Your task to perform on an android device: turn on wifi Image 0: 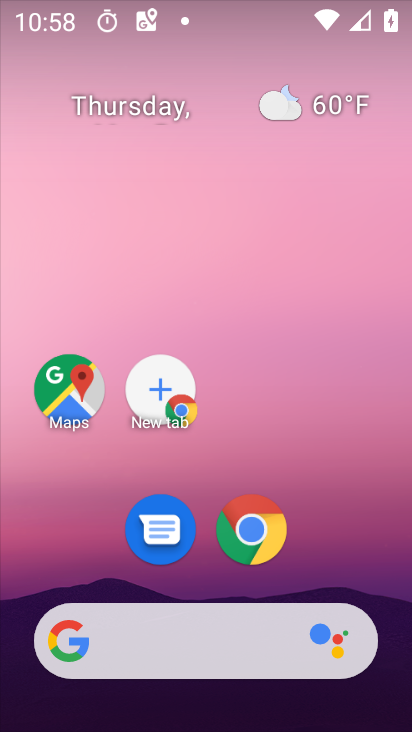
Step 0: drag from (357, 676) to (320, 263)
Your task to perform on an android device: turn on wifi Image 1: 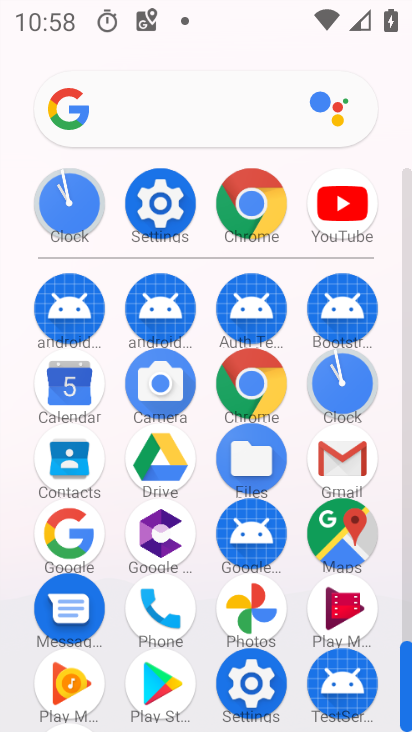
Step 1: click (146, 204)
Your task to perform on an android device: turn on wifi Image 2: 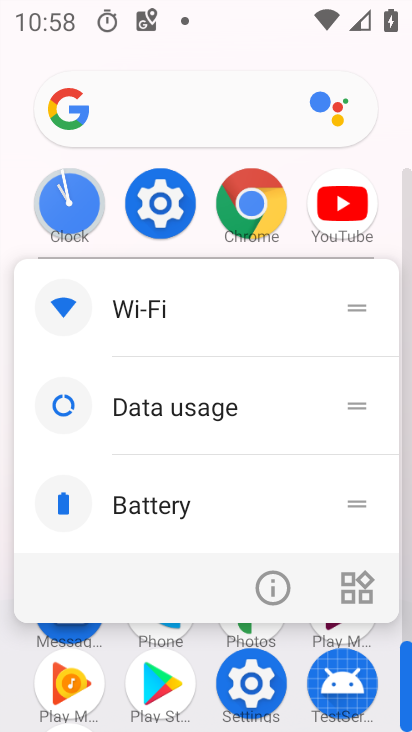
Step 2: click (166, 309)
Your task to perform on an android device: turn on wifi Image 3: 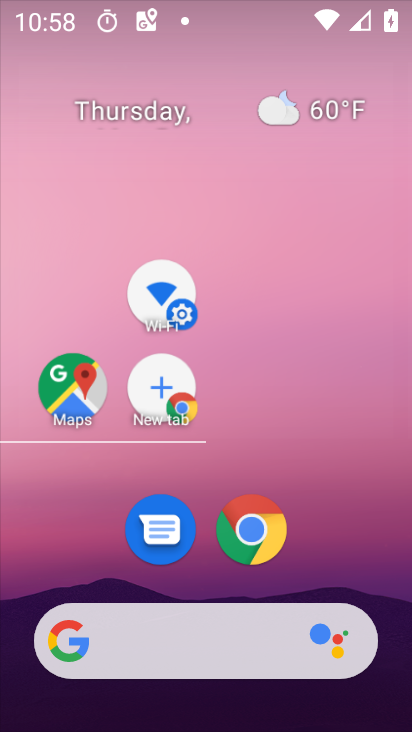
Step 3: click (259, 420)
Your task to perform on an android device: turn on wifi Image 4: 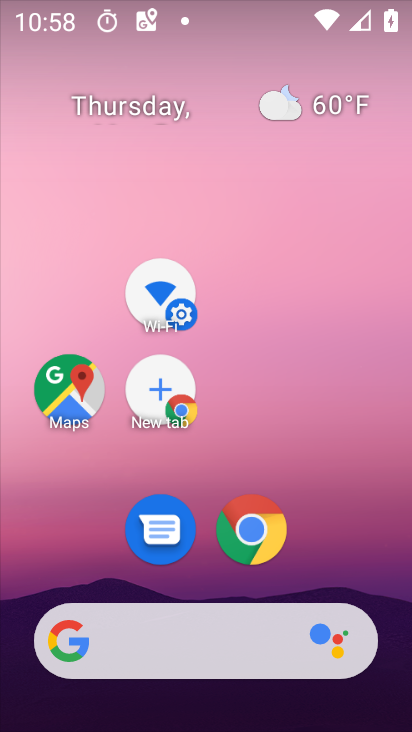
Step 4: drag from (365, 565) to (232, 138)
Your task to perform on an android device: turn on wifi Image 5: 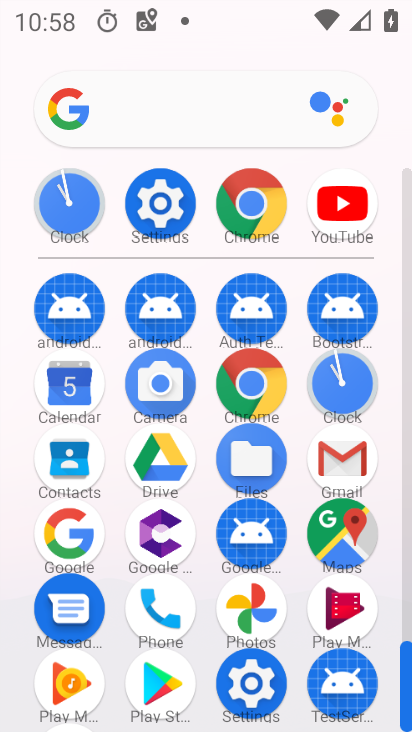
Step 5: click (167, 206)
Your task to perform on an android device: turn on wifi Image 6: 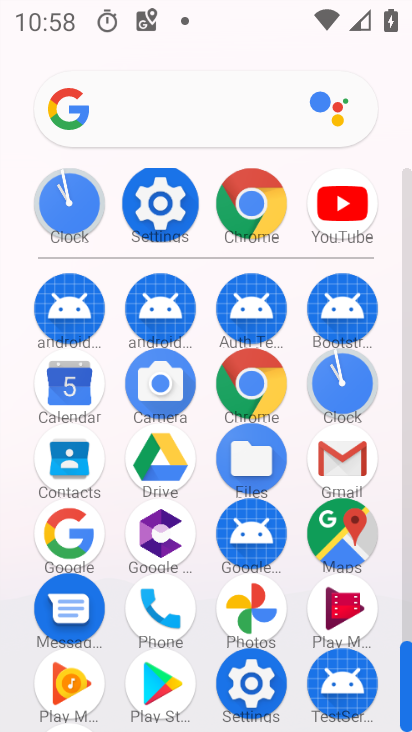
Step 6: click (167, 206)
Your task to perform on an android device: turn on wifi Image 7: 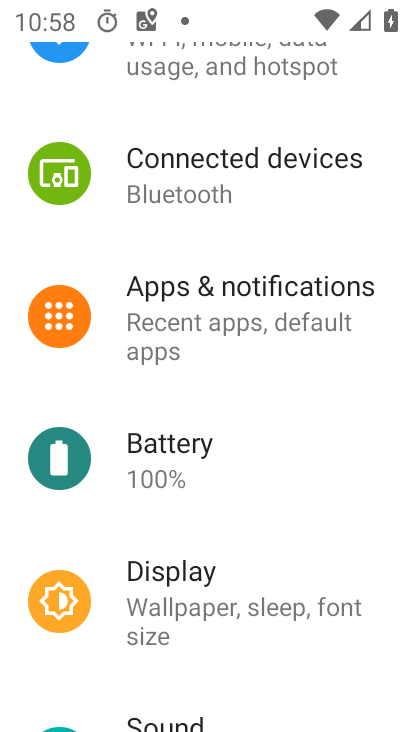
Step 7: drag from (200, 148) to (247, 397)
Your task to perform on an android device: turn on wifi Image 8: 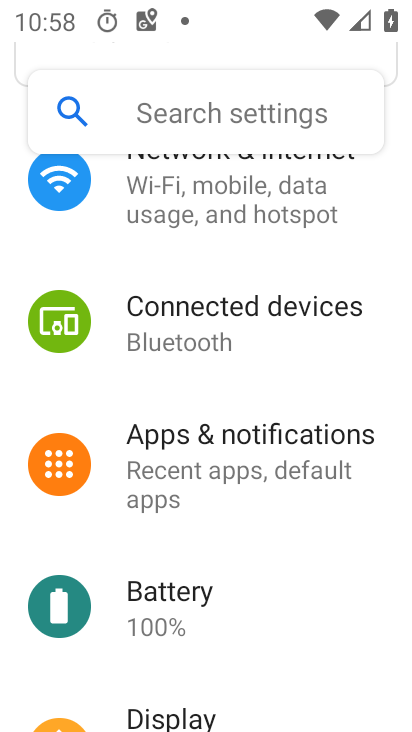
Step 8: click (258, 208)
Your task to perform on an android device: turn on wifi Image 9: 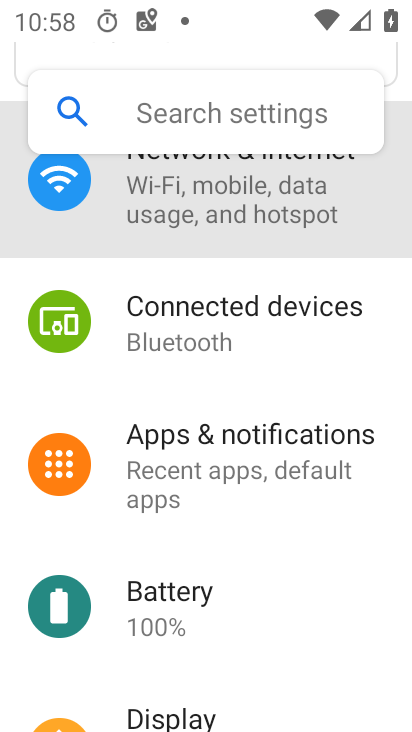
Step 9: click (259, 212)
Your task to perform on an android device: turn on wifi Image 10: 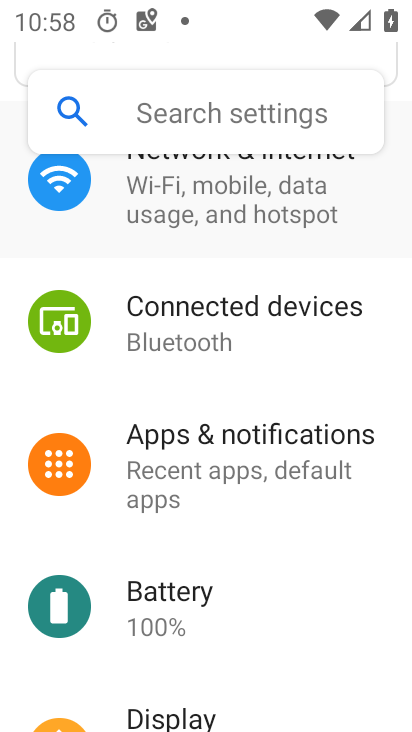
Step 10: click (259, 212)
Your task to perform on an android device: turn on wifi Image 11: 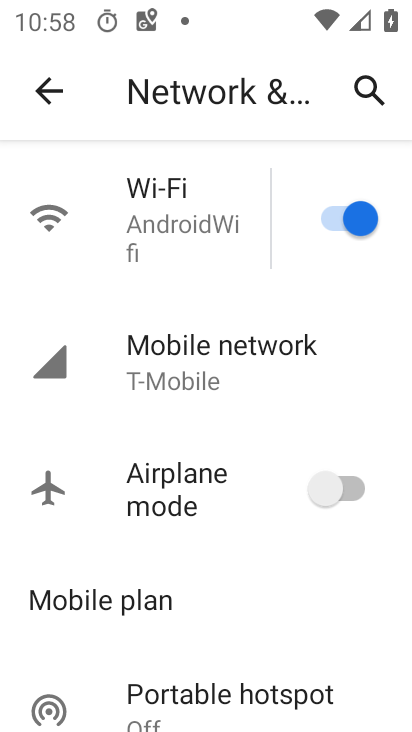
Step 11: task complete